Your task to perform on an android device: delete a single message in the gmail app Image 0: 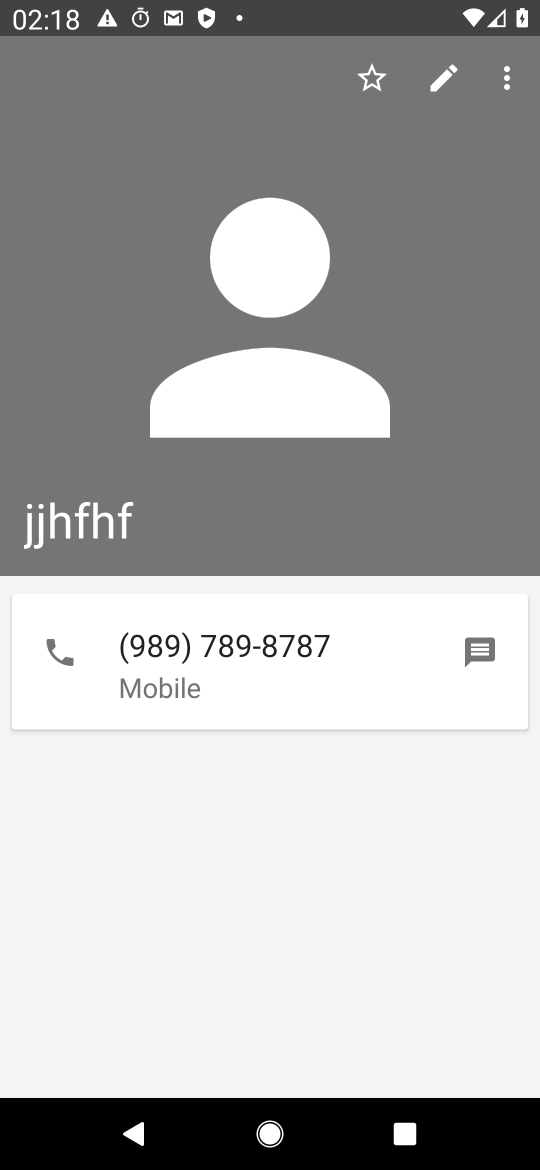
Step 0: press home button
Your task to perform on an android device: delete a single message in the gmail app Image 1: 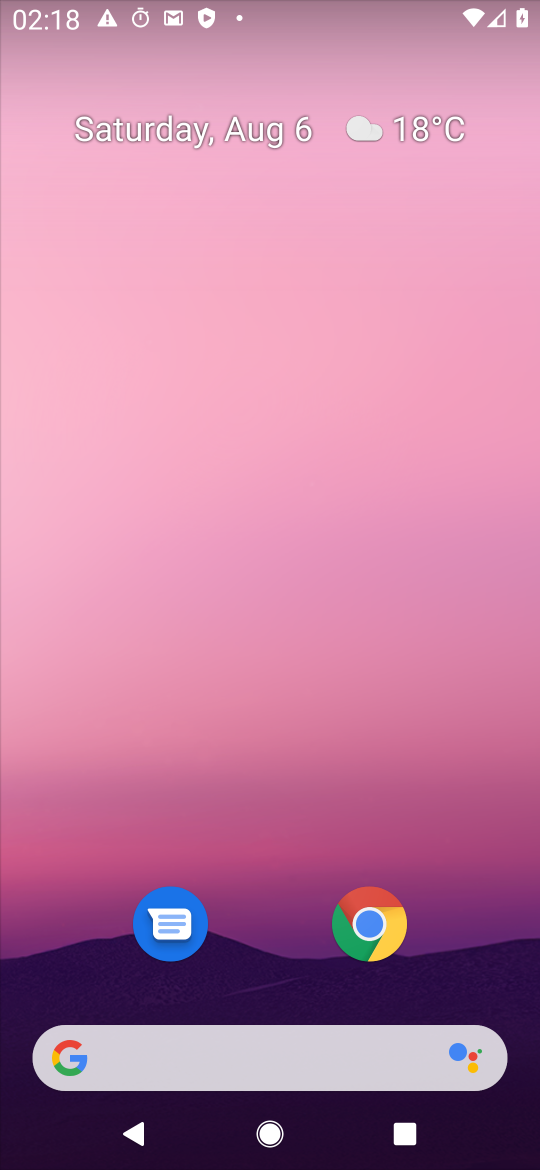
Step 1: drag from (316, 1033) to (364, 197)
Your task to perform on an android device: delete a single message in the gmail app Image 2: 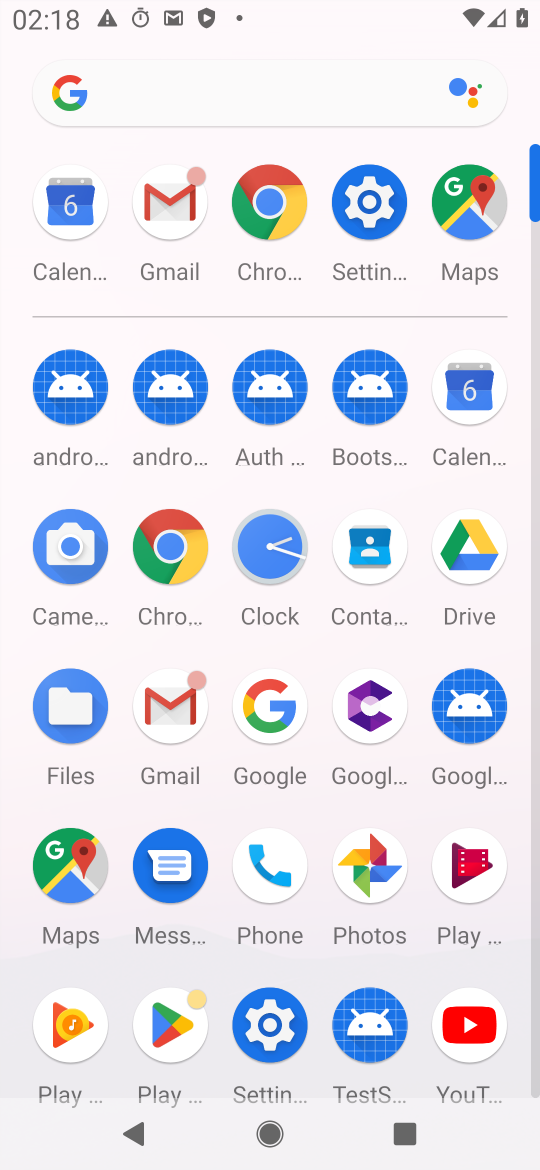
Step 2: click (171, 711)
Your task to perform on an android device: delete a single message in the gmail app Image 3: 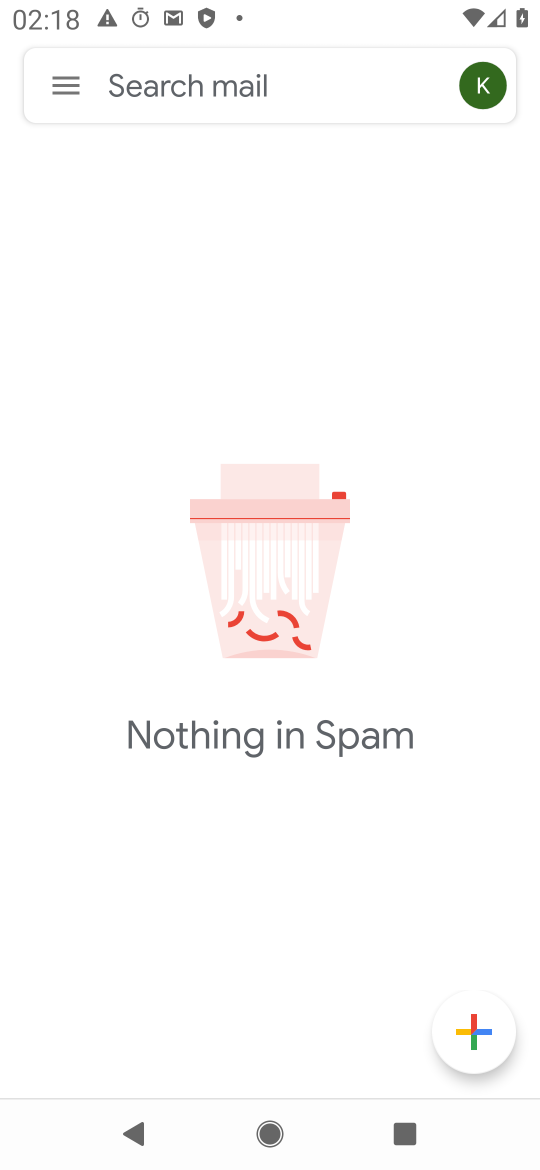
Step 3: click (66, 105)
Your task to perform on an android device: delete a single message in the gmail app Image 4: 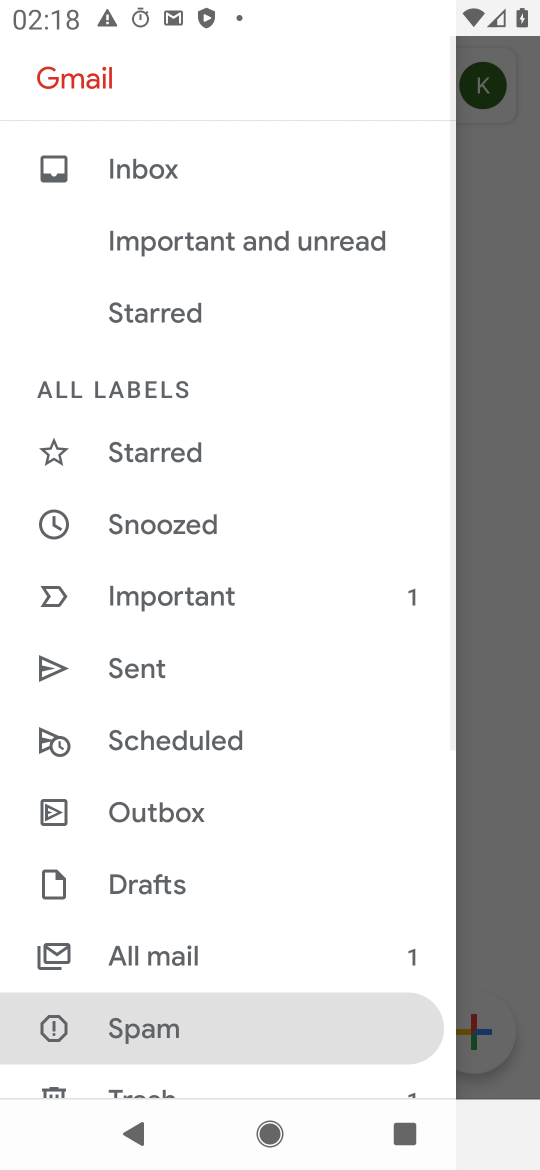
Step 4: click (129, 162)
Your task to perform on an android device: delete a single message in the gmail app Image 5: 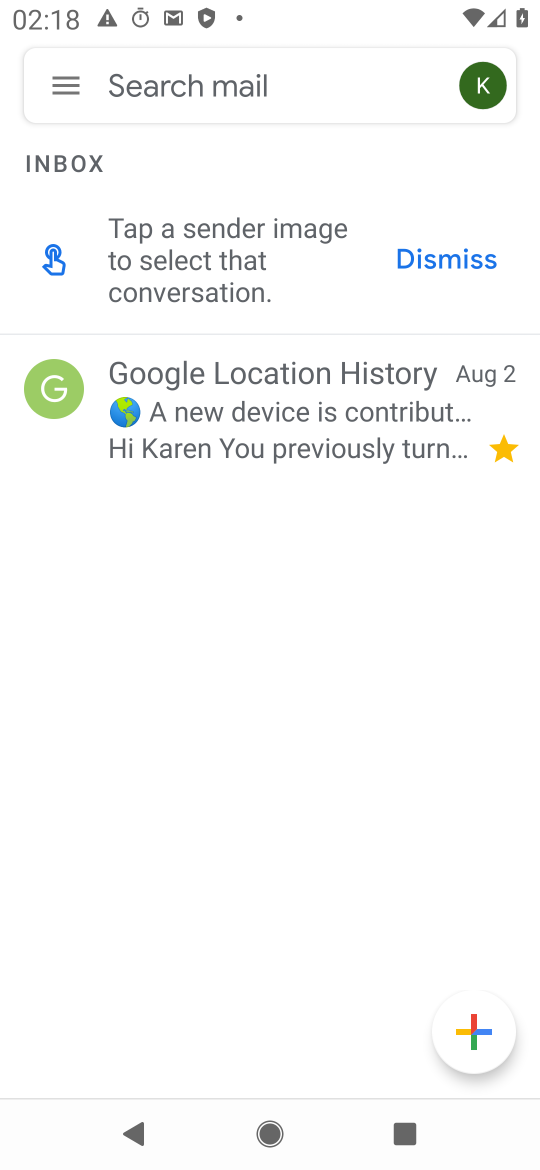
Step 5: click (293, 377)
Your task to perform on an android device: delete a single message in the gmail app Image 6: 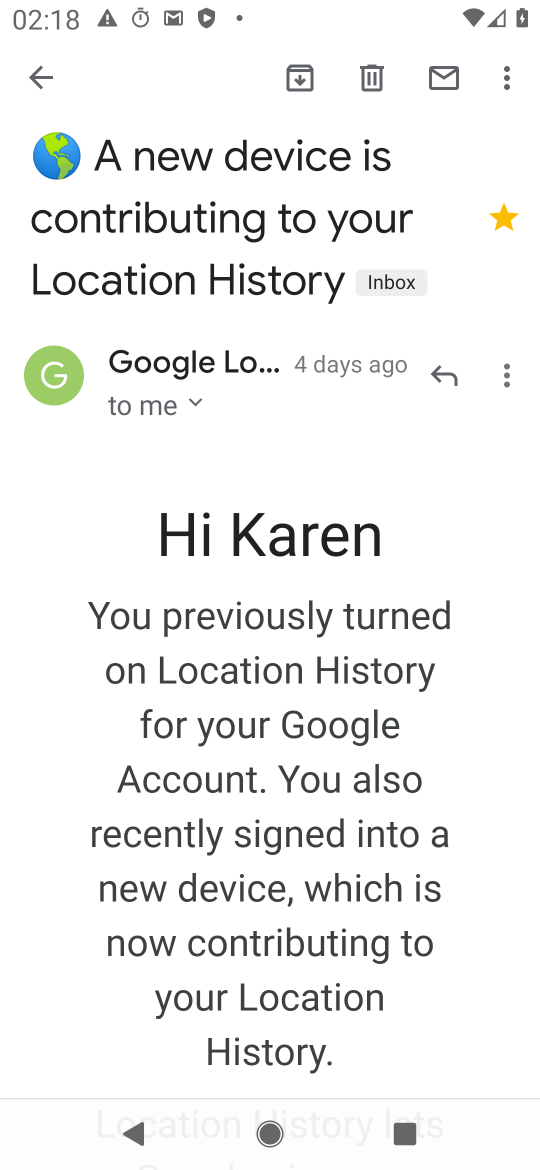
Step 6: click (372, 70)
Your task to perform on an android device: delete a single message in the gmail app Image 7: 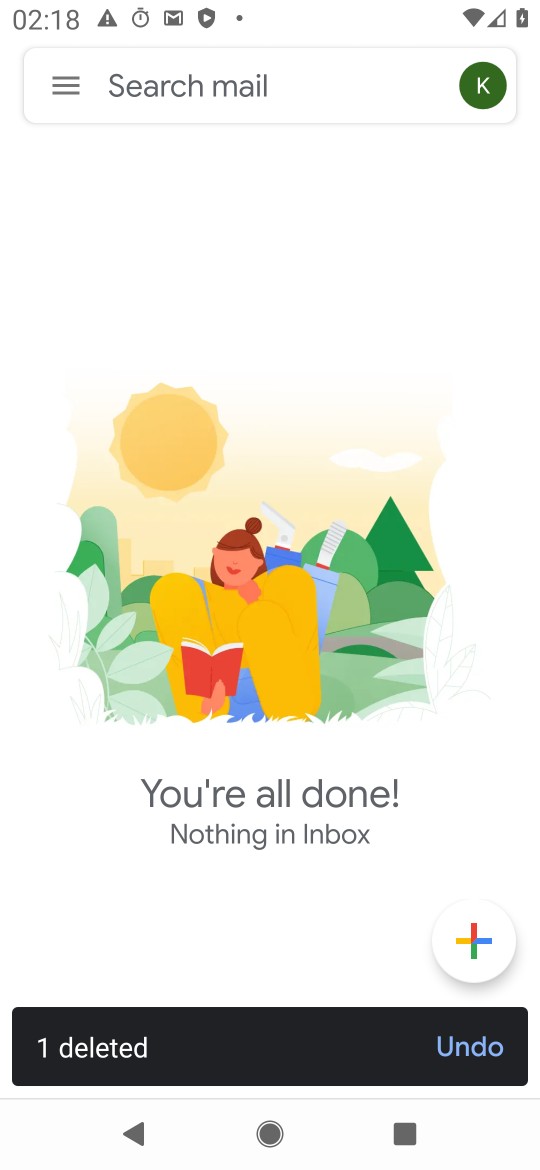
Step 7: task complete